Your task to perform on an android device: turn smart compose on in the gmail app Image 0: 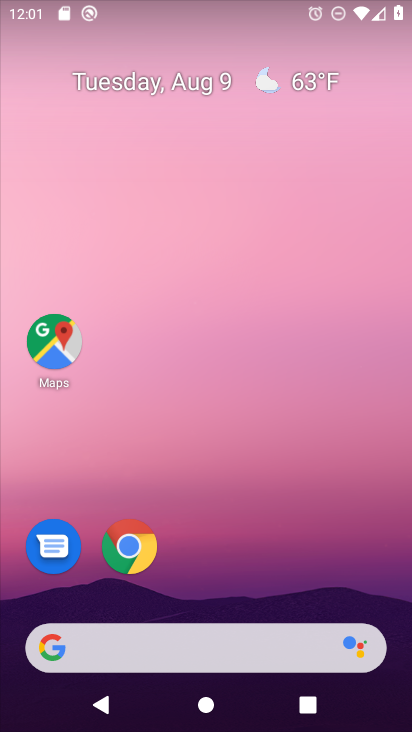
Step 0: drag from (233, 585) to (227, 15)
Your task to perform on an android device: turn smart compose on in the gmail app Image 1: 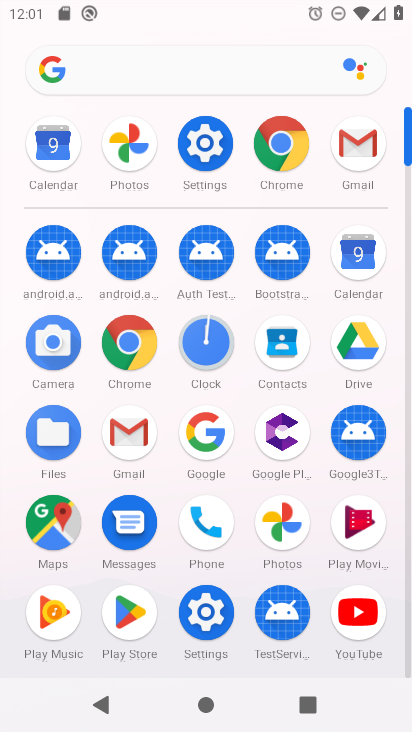
Step 1: click (123, 429)
Your task to perform on an android device: turn smart compose on in the gmail app Image 2: 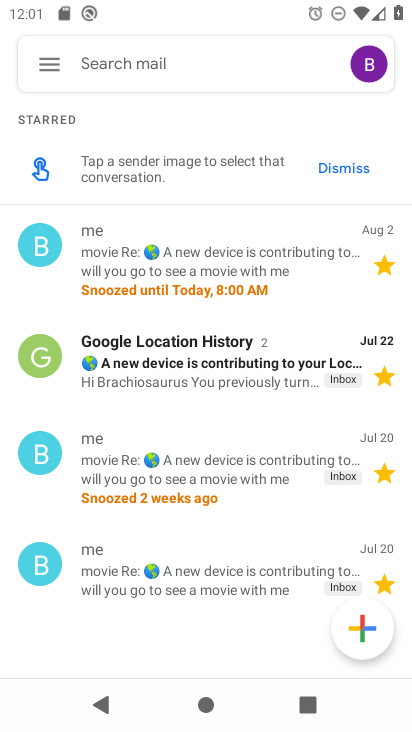
Step 2: click (49, 60)
Your task to perform on an android device: turn smart compose on in the gmail app Image 3: 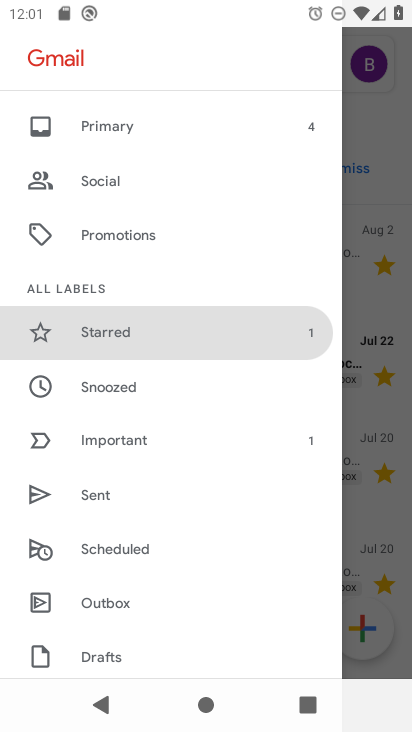
Step 3: drag from (128, 637) to (196, 97)
Your task to perform on an android device: turn smart compose on in the gmail app Image 4: 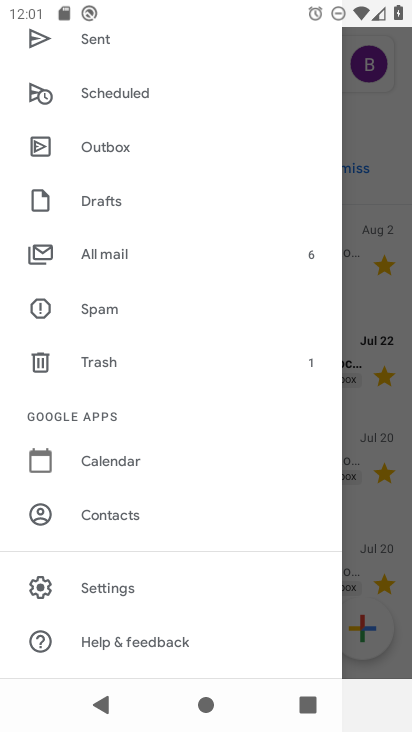
Step 4: click (136, 582)
Your task to perform on an android device: turn smart compose on in the gmail app Image 5: 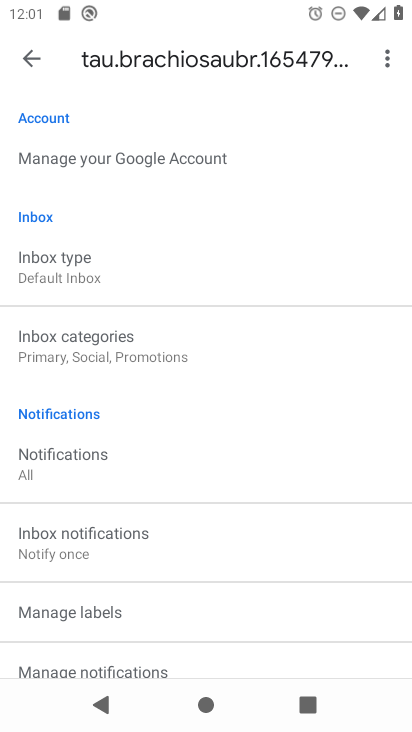
Step 5: task complete